Your task to perform on an android device: Go to Google Image 0: 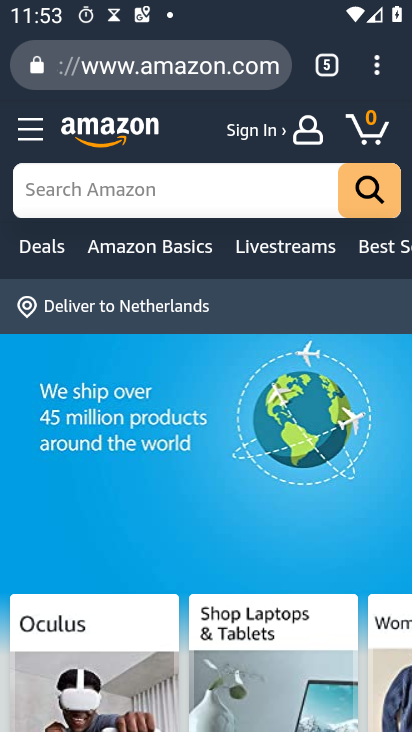
Step 0: press home button
Your task to perform on an android device: Go to Google Image 1: 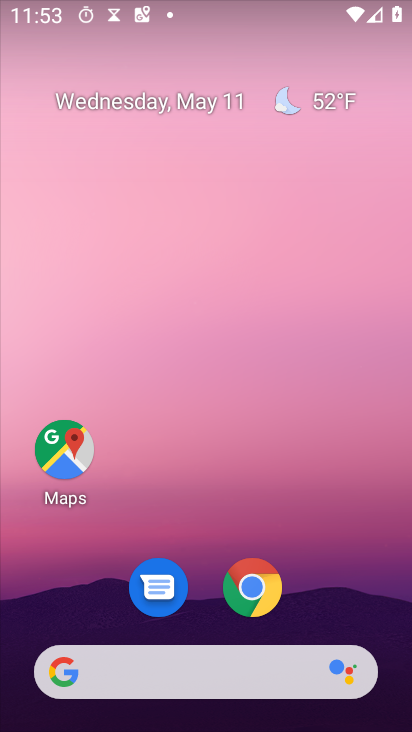
Step 1: drag from (250, 690) to (314, 231)
Your task to perform on an android device: Go to Google Image 2: 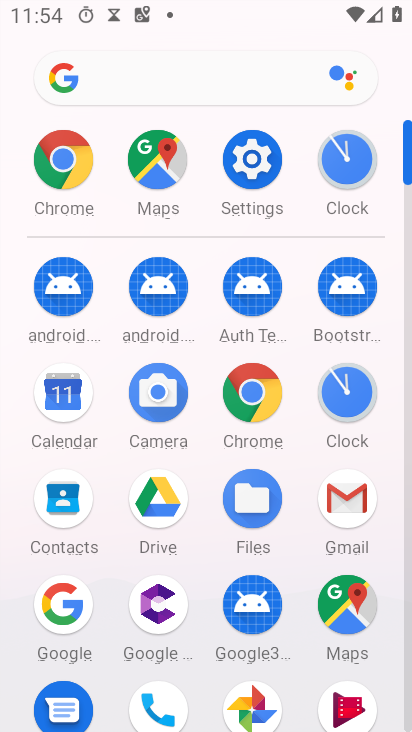
Step 2: click (94, 101)
Your task to perform on an android device: Go to Google Image 3: 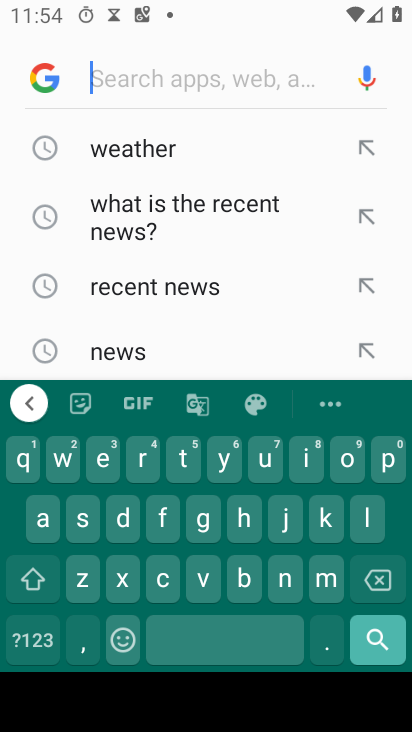
Step 3: click (43, 92)
Your task to perform on an android device: Go to Google Image 4: 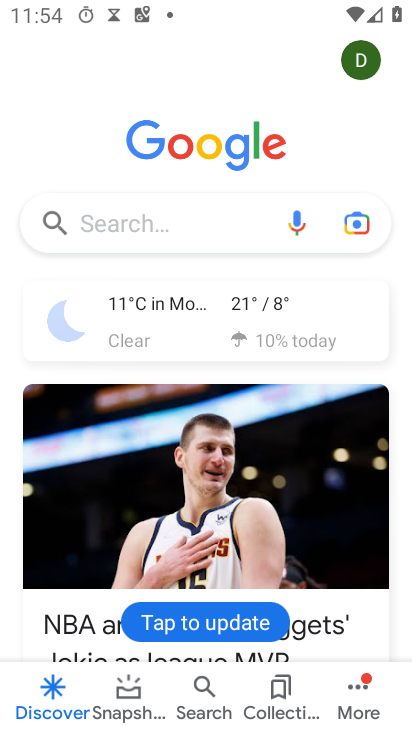
Step 4: task complete